Your task to perform on an android device: allow cookies in the chrome app Image 0: 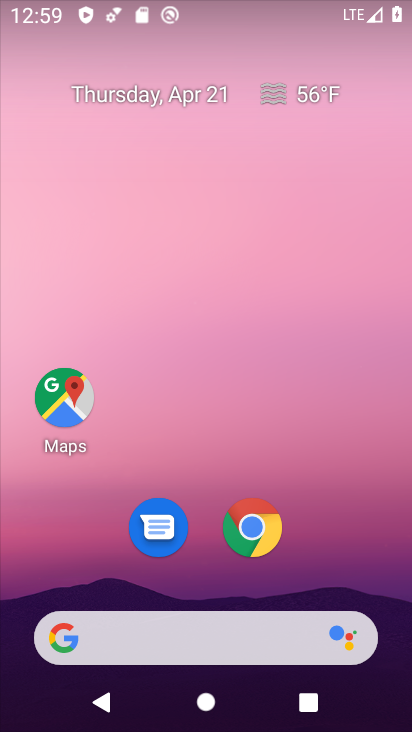
Step 0: click (245, 531)
Your task to perform on an android device: allow cookies in the chrome app Image 1: 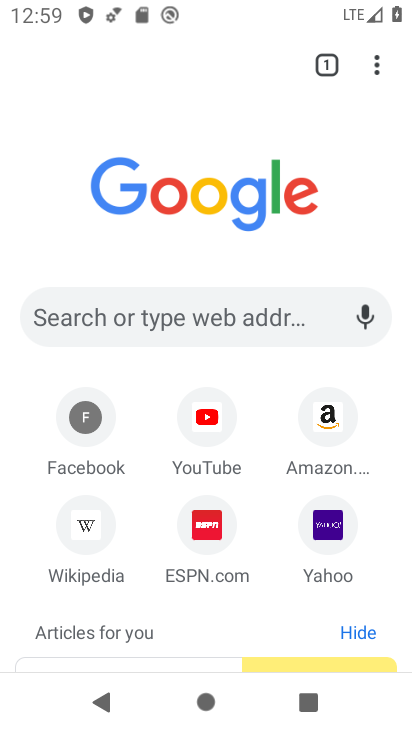
Step 1: click (377, 67)
Your task to perform on an android device: allow cookies in the chrome app Image 2: 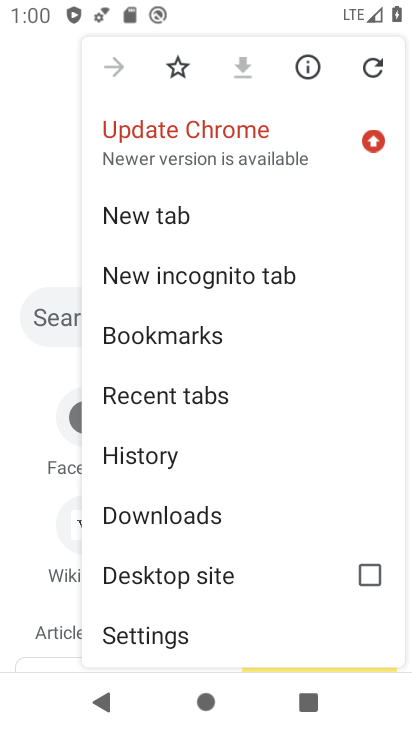
Step 2: click (132, 633)
Your task to perform on an android device: allow cookies in the chrome app Image 3: 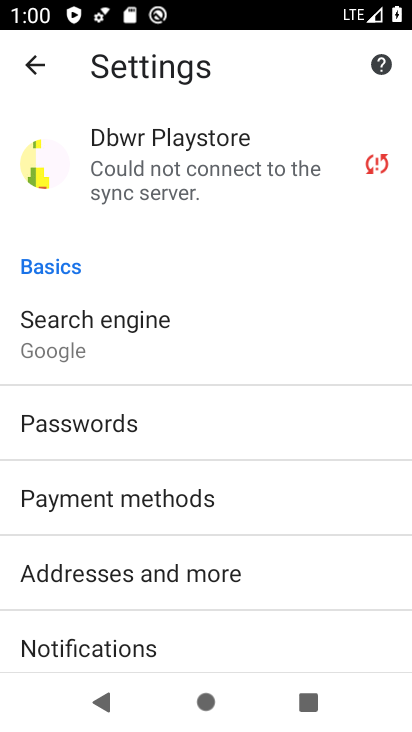
Step 3: drag from (157, 612) to (192, 308)
Your task to perform on an android device: allow cookies in the chrome app Image 4: 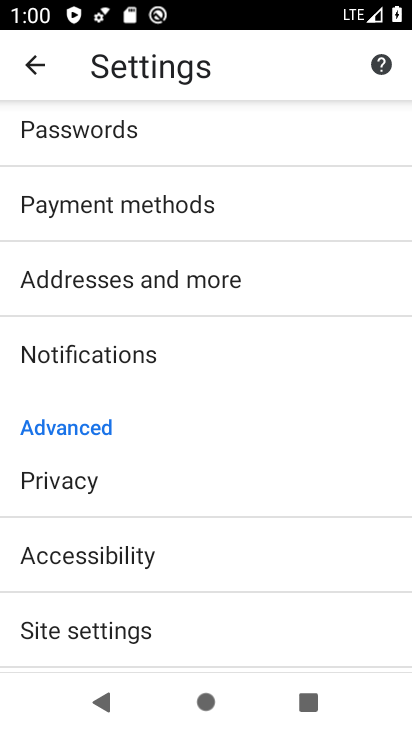
Step 4: click (98, 633)
Your task to perform on an android device: allow cookies in the chrome app Image 5: 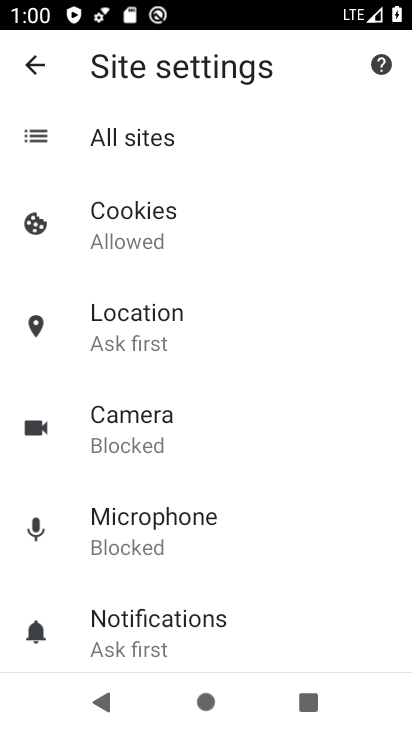
Step 5: click (147, 222)
Your task to perform on an android device: allow cookies in the chrome app Image 6: 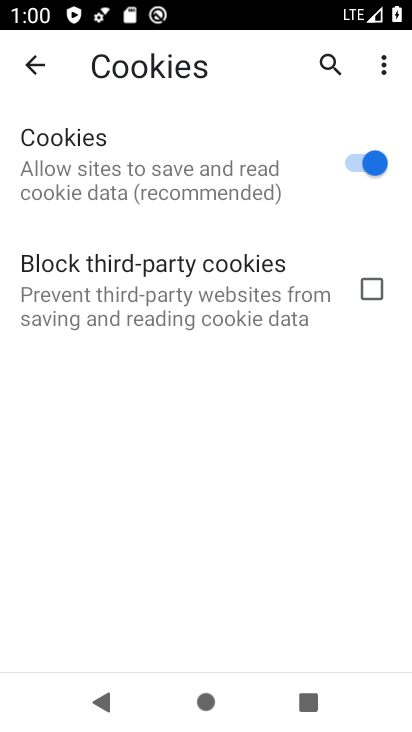
Step 6: task complete